Your task to perform on an android device: Go to wifi settings Image 0: 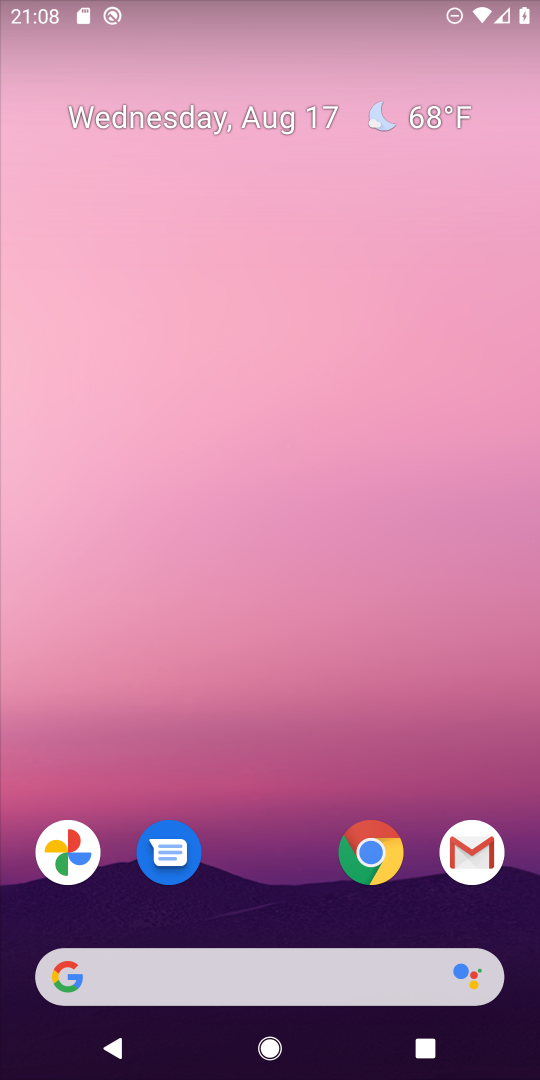
Step 0: drag from (268, 877) to (267, 237)
Your task to perform on an android device: Go to wifi settings Image 1: 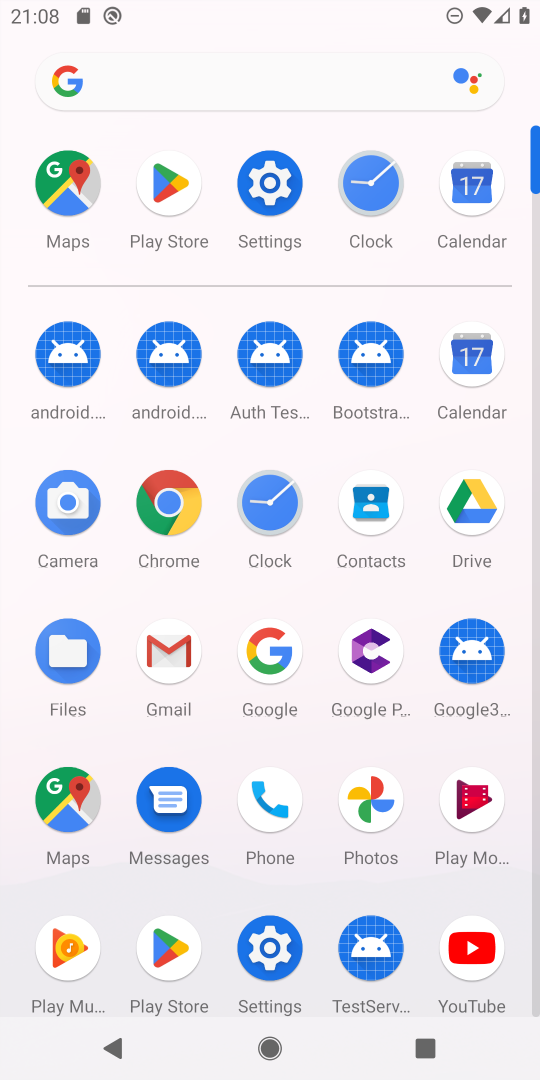
Step 1: click (271, 179)
Your task to perform on an android device: Go to wifi settings Image 2: 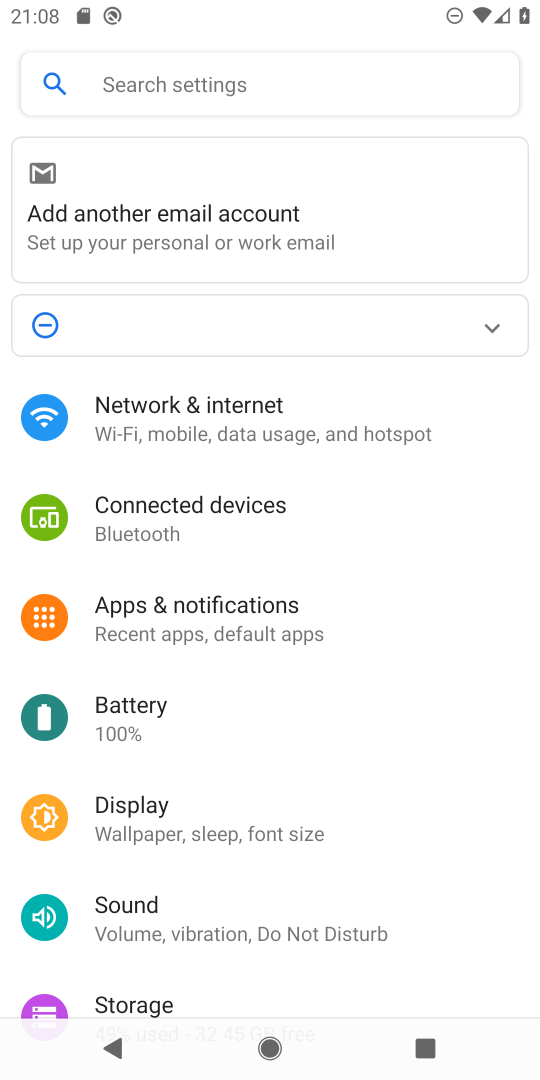
Step 2: click (240, 399)
Your task to perform on an android device: Go to wifi settings Image 3: 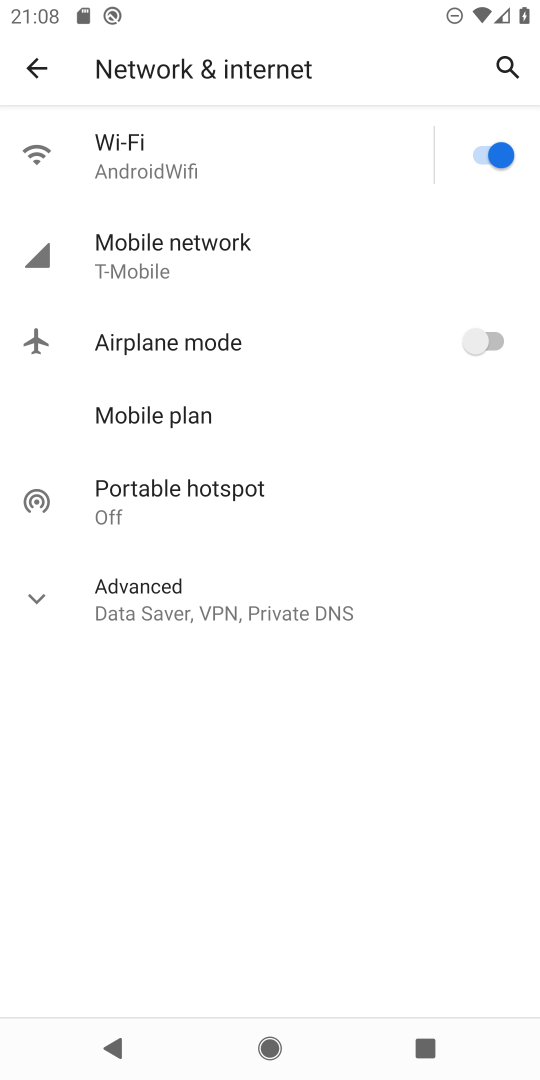
Step 3: task complete